Your task to perform on an android device: Open Chrome and go to settings Image 0: 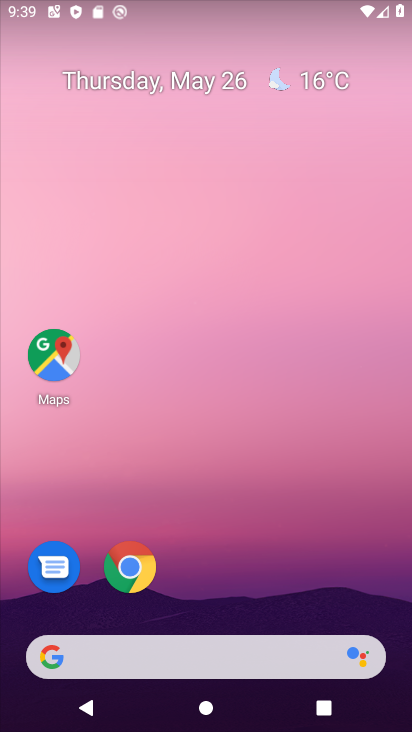
Step 0: click (126, 561)
Your task to perform on an android device: Open Chrome and go to settings Image 1: 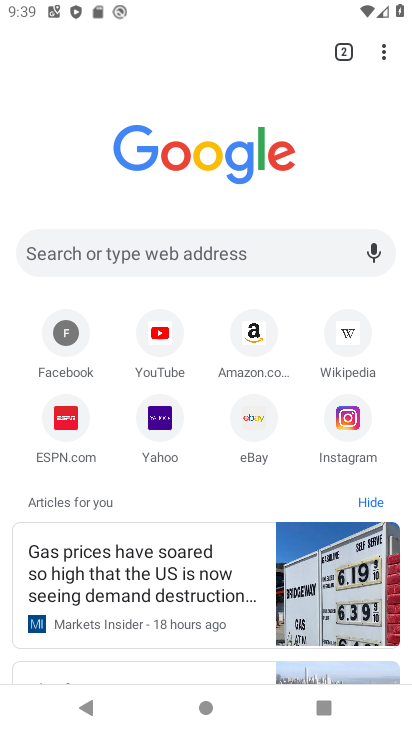
Step 1: click (380, 56)
Your task to perform on an android device: Open Chrome and go to settings Image 2: 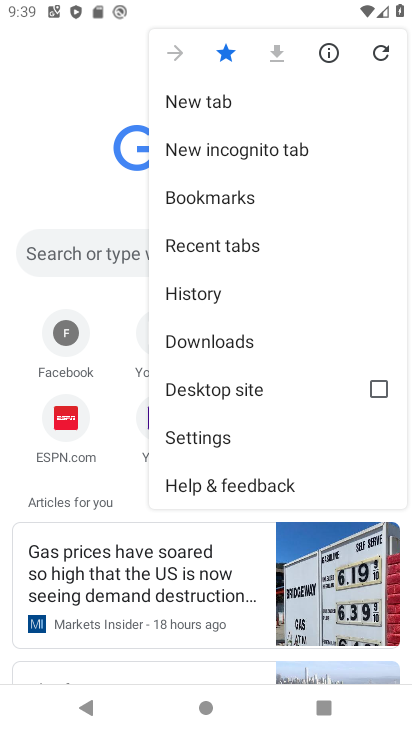
Step 2: click (197, 433)
Your task to perform on an android device: Open Chrome and go to settings Image 3: 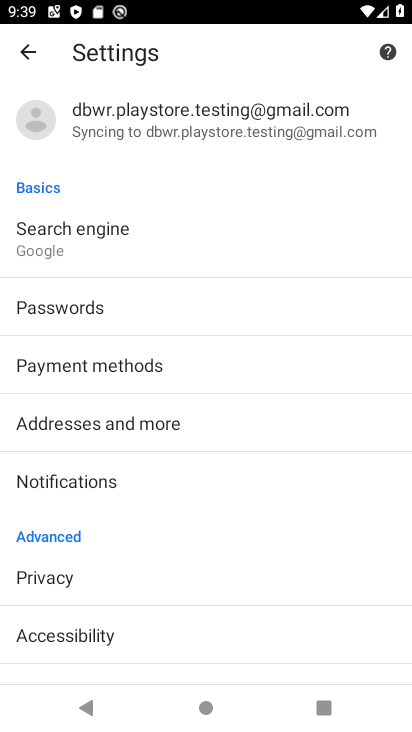
Step 3: task complete